Your task to perform on an android device: open chrome privacy settings Image 0: 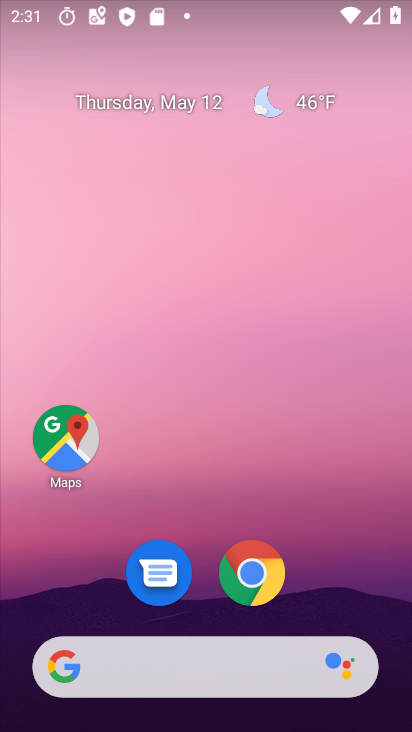
Step 0: click (254, 577)
Your task to perform on an android device: open chrome privacy settings Image 1: 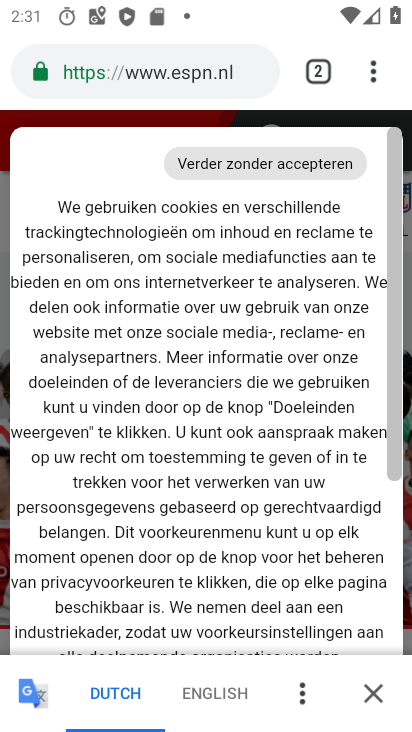
Step 1: click (398, 62)
Your task to perform on an android device: open chrome privacy settings Image 2: 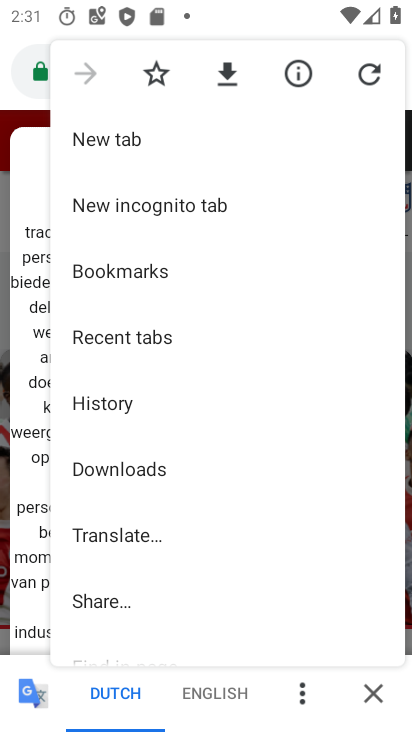
Step 2: drag from (115, 609) to (151, 199)
Your task to perform on an android device: open chrome privacy settings Image 3: 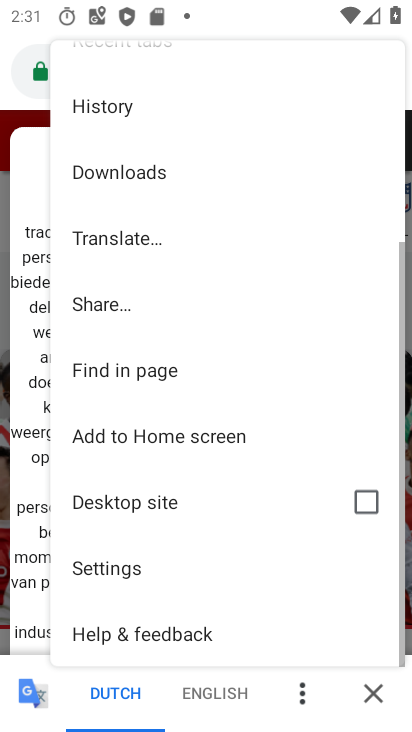
Step 3: click (187, 568)
Your task to perform on an android device: open chrome privacy settings Image 4: 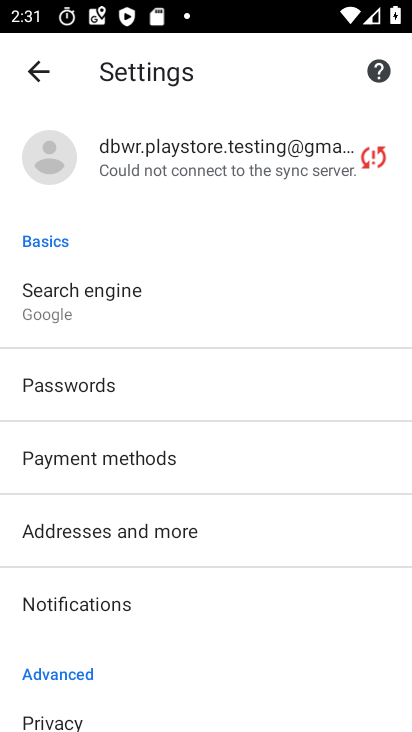
Step 4: drag from (137, 630) to (186, 193)
Your task to perform on an android device: open chrome privacy settings Image 5: 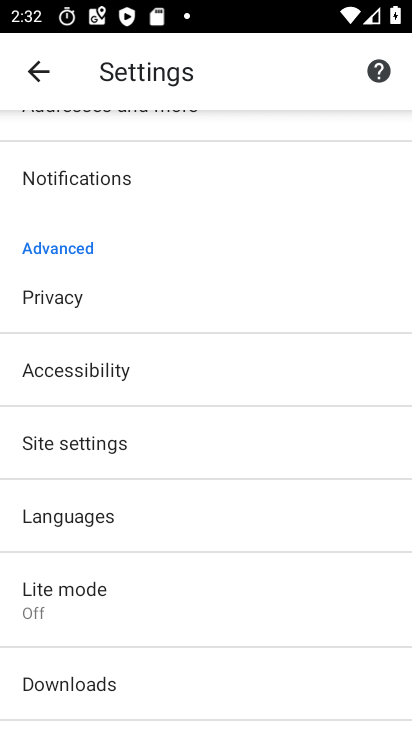
Step 5: click (249, 296)
Your task to perform on an android device: open chrome privacy settings Image 6: 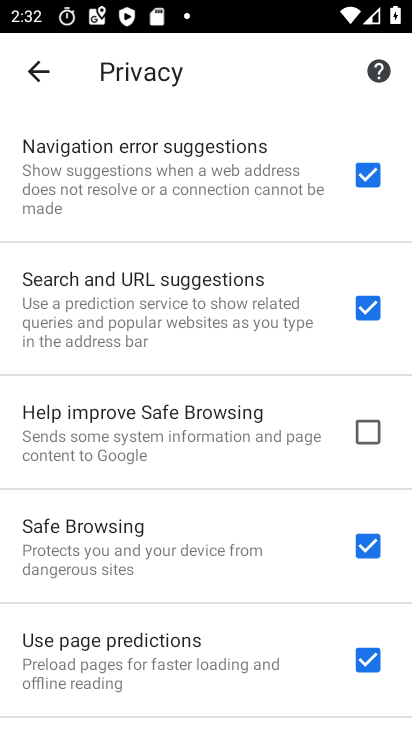
Step 6: task complete